Your task to perform on an android device: Go to ESPN.com Image 0: 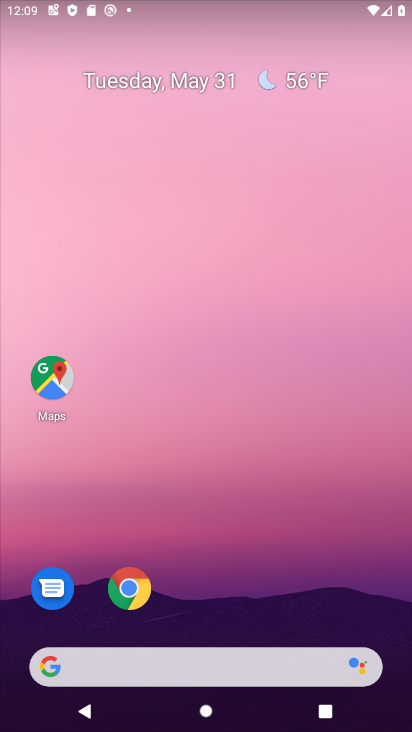
Step 0: click (125, 600)
Your task to perform on an android device: Go to ESPN.com Image 1: 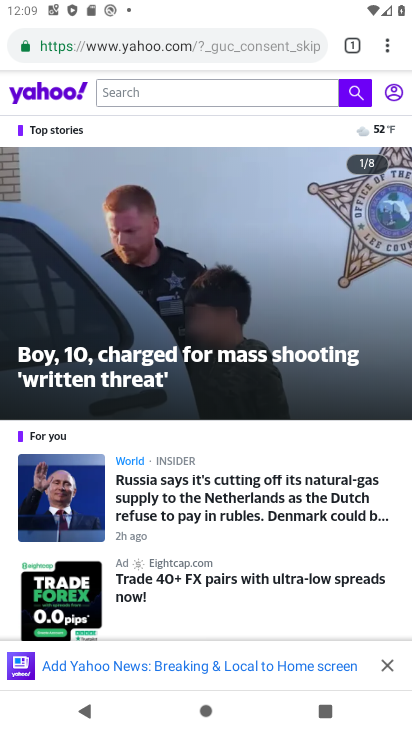
Step 1: press back button
Your task to perform on an android device: Go to ESPN.com Image 2: 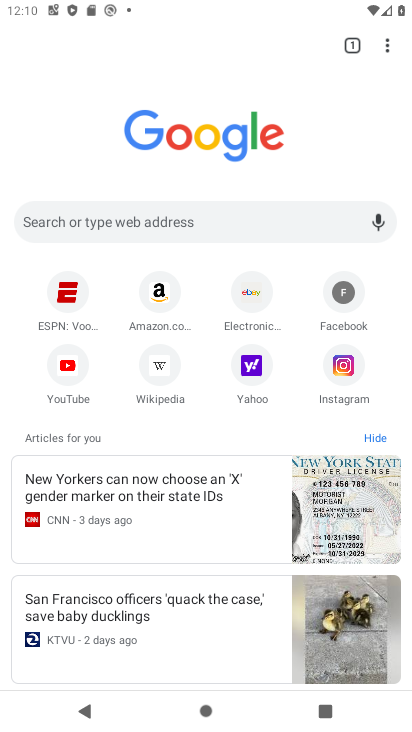
Step 2: click (69, 321)
Your task to perform on an android device: Go to ESPN.com Image 3: 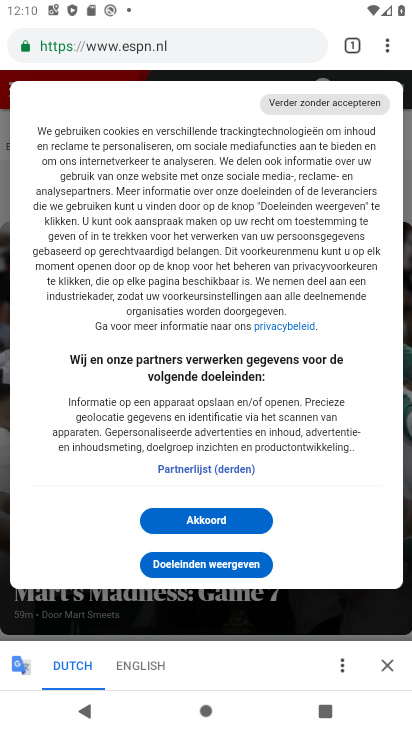
Step 3: task complete